Your task to perform on an android device: Search for sushi restaurants on Maps Image 0: 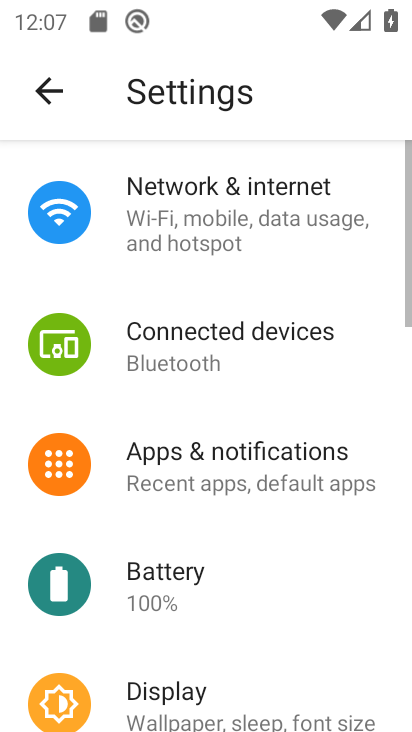
Step 0: press home button
Your task to perform on an android device: Search for sushi restaurants on Maps Image 1: 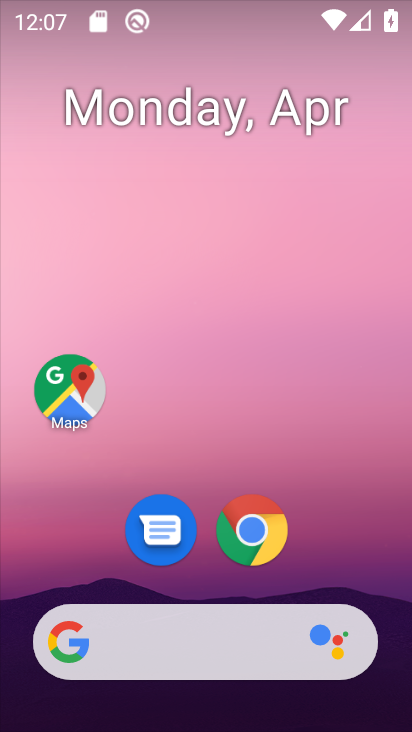
Step 1: drag from (191, 660) to (394, 28)
Your task to perform on an android device: Search for sushi restaurants on Maps Image 2: 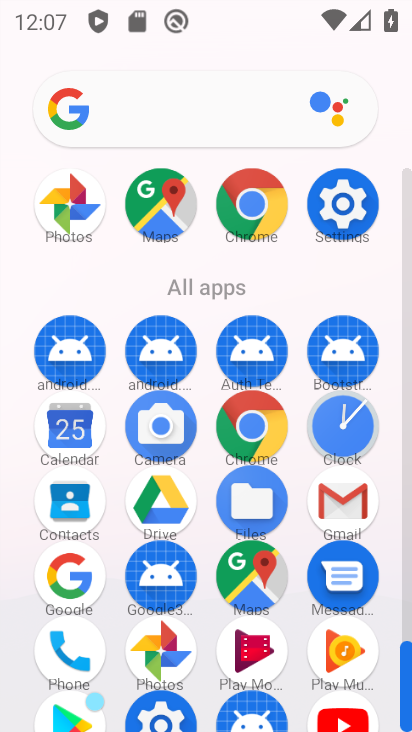
Step 2: click (165, 218)
Your task to perform on an android device: Search for sushi restaurants on Maps Image 3: 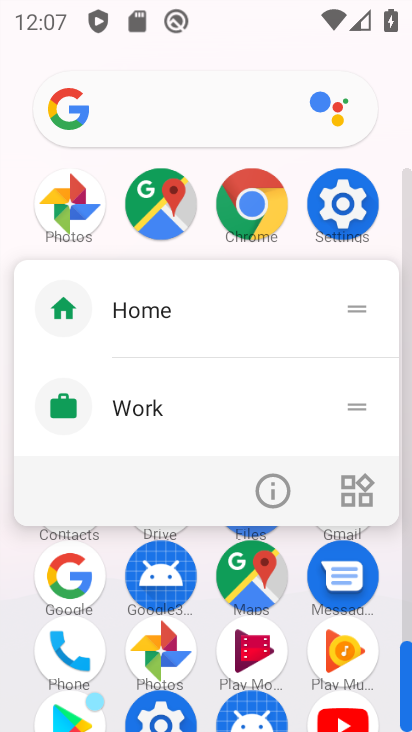
Step 3: click (147, 226)
Your task to perform on an android device: Search for sushi restaurants on Maps Image 4: 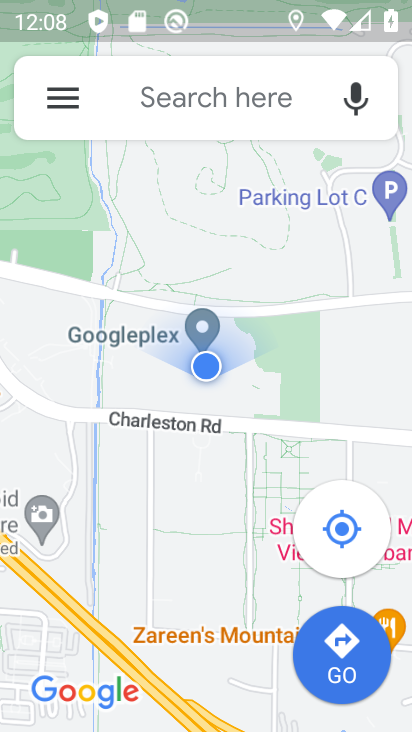
Step 4: click (176, 101)
Your task to perform on an android device: Search for sushi restaurants on Maps Image 5: 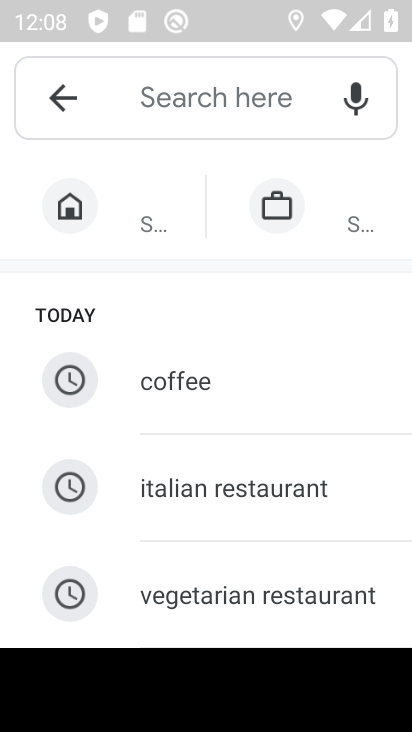
Step 5: drag from (198, 537) to (366, 143)
Your task to perform on an android device: Search for sushi restaurants on Maps Image 6: 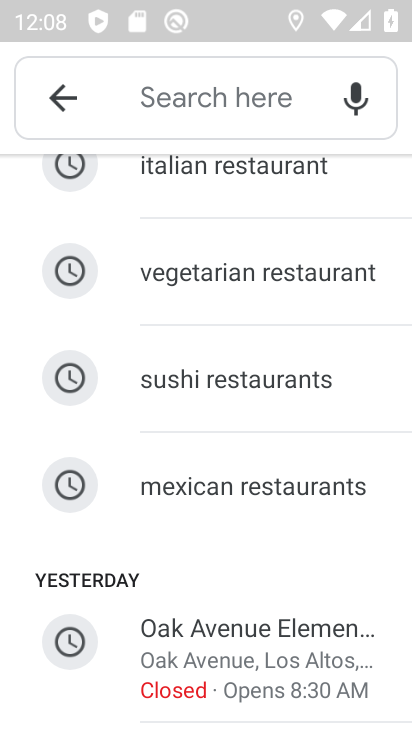
Step 6: click (265, 384)
Your task to perform on an android device: Search for sushi restaurants on Maps Image 7: 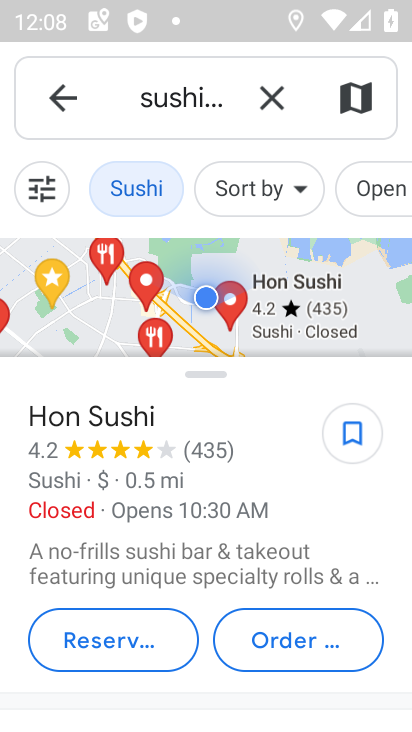
Step 7: task complete